Your task to perform on an android device: turn notification dots off Image 0: 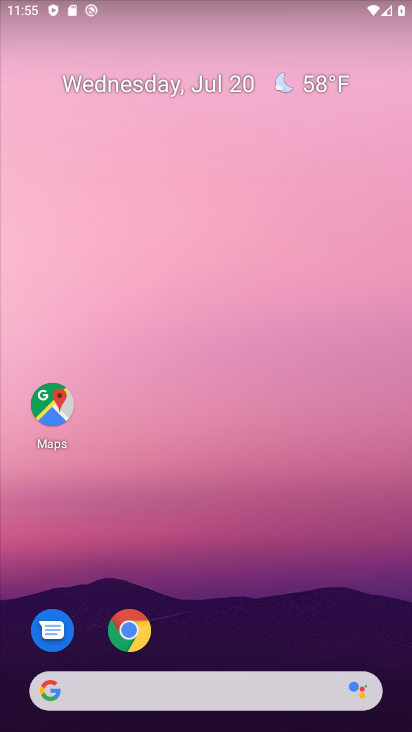
Step 0: drag from (221, 697) to (248, 120)
Your task to perform on an android device: turn notification dots off Image 1: 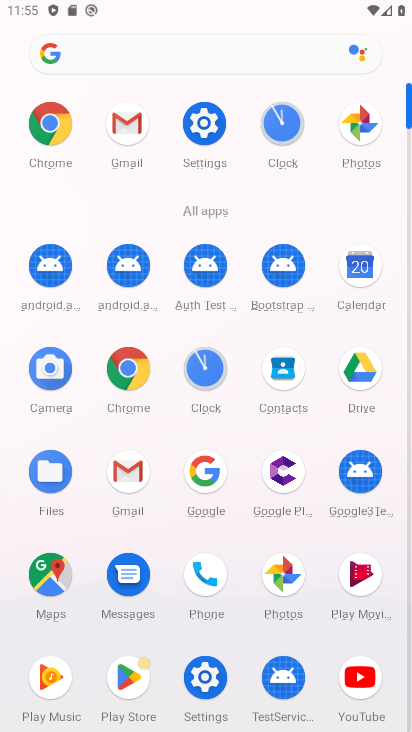
Step 1: click (205, 668)
Your task to perform on an android device: turn notification dots off Image 2: 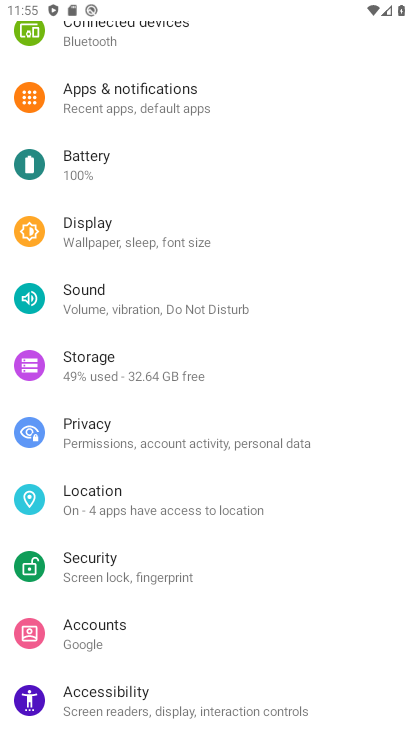
Step 2: click (138, 100)
Your task to perform on an android device: turn notification dots off Image 3: 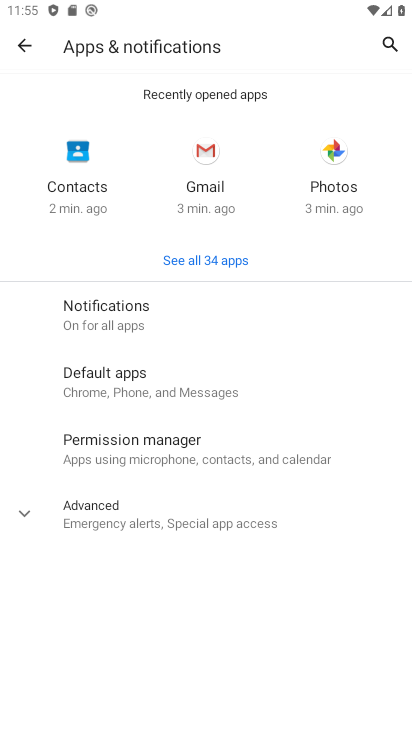
Step 3: click (119, 318)
Your task to perform on an android device: turn notification dots off Image 4: 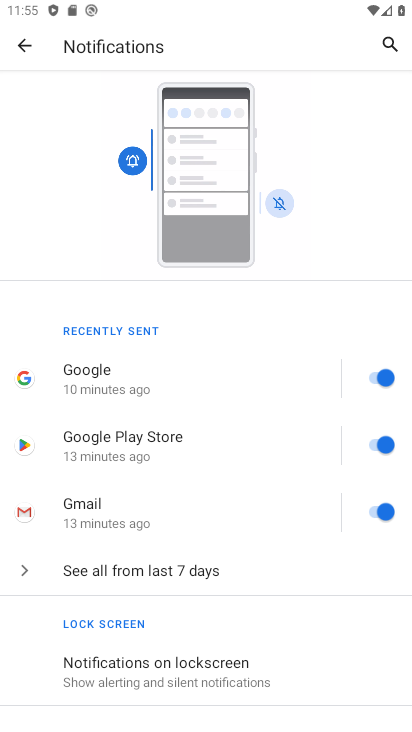
Step 4: drag from (271, 645) to (267, 326)
Your task to perform on an android device: turn notification dots off Image 5: 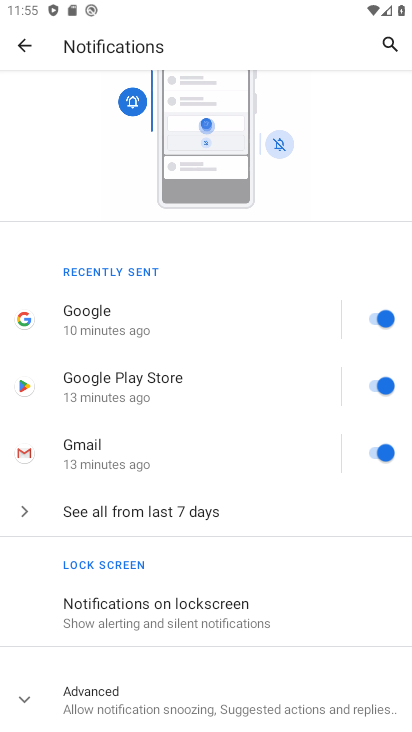
Step 5: click (179, 705)
Your task to perform on an android device: turn notification dots off Image 6: 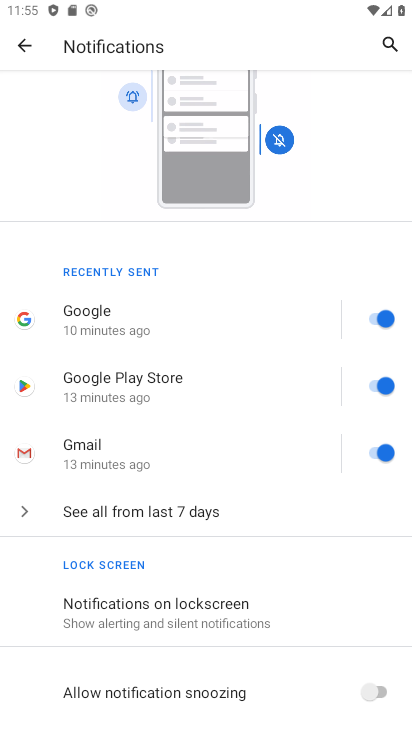
Step 6: drag from (294, 585) to (283, 115)
Your task to perform on an android device: turn notification dots off Image 7: 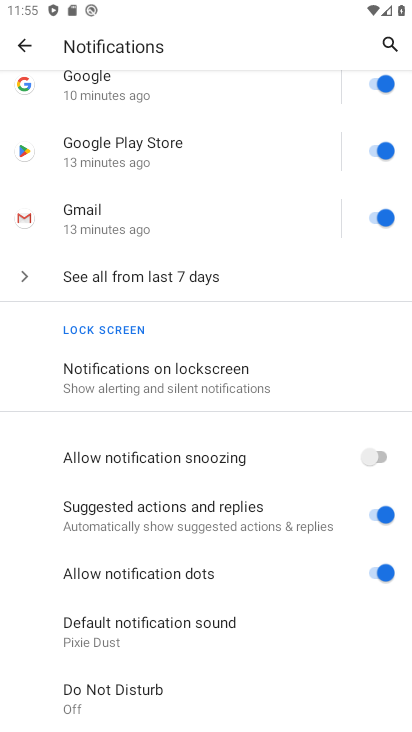
Step 7: click (376, 569)
Your task to perform on an android device: turn notification dots off Image 8: 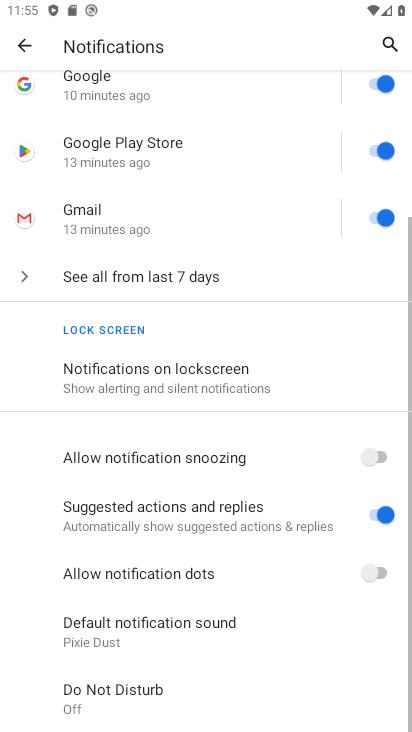
Step 8: task complete